Your task to perform on an android device: allow notifications from all sites in the chrome app Image 0: 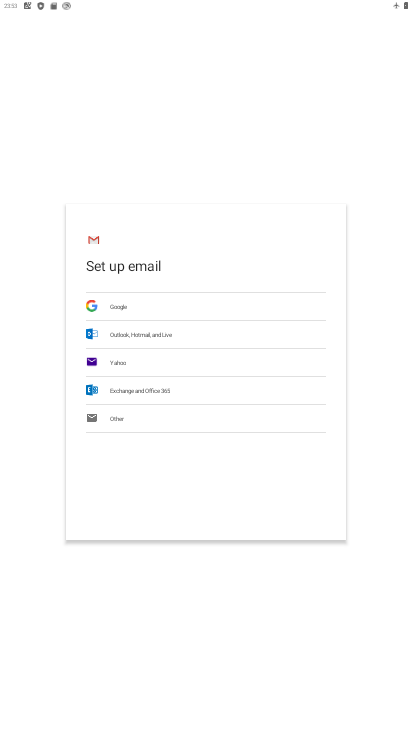
Step 0: press home button
Your task to perform on an android device: allow notifications from all sites in the chrome app Image 1: 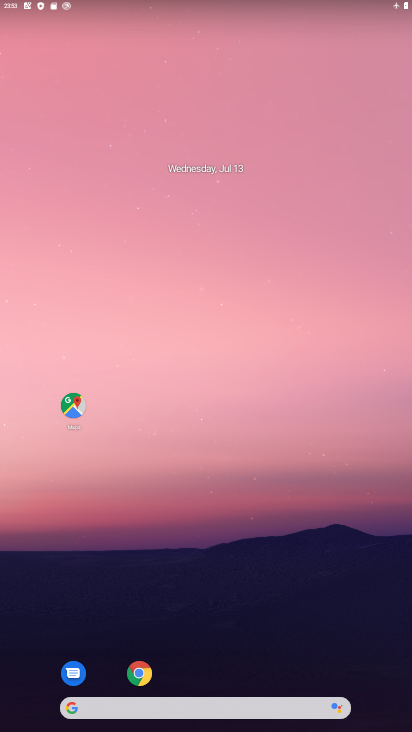
Step 1: click (141, 674)
Your task to perform on an android device: allow notifications from all sites in the chrome app Image 2: 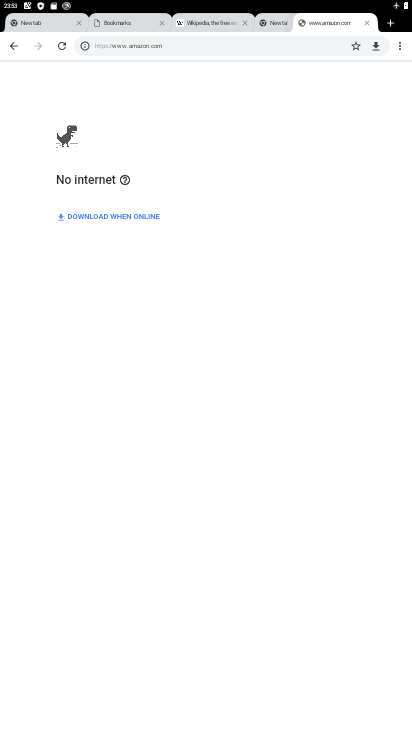
Step 2: click (400, 46)
Your task to perform on an android device: allow notifications from all sites in the chrome app Image 3: 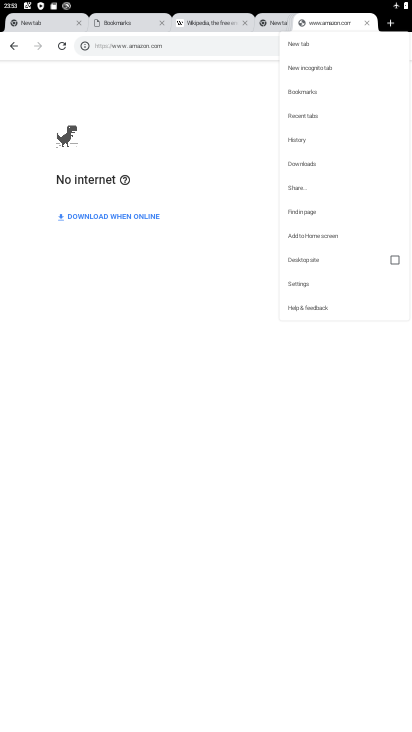
Step 3: click (314, 284)
Your task to perform on an android device: allow notifications from all sites in the chrome app Image 4: 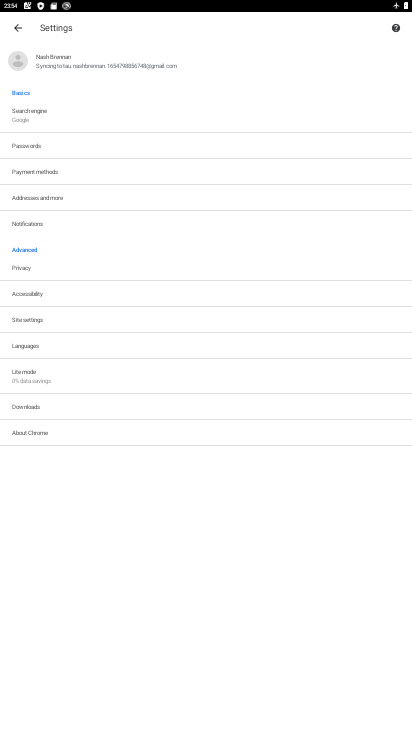
Step 4: click (32, 220)
Your task to perform on an android device: allow notifications from all sites in the chrome app Image 5: 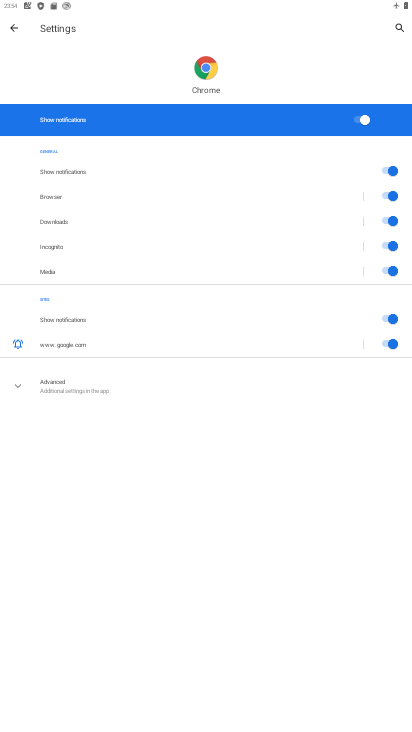
Step 5: task complete